Your task to perform on an android device: Open the stopwatch Image 0: 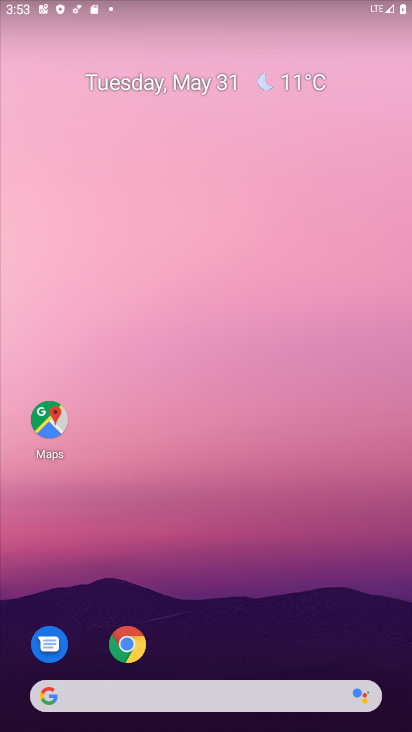
Step 0: drag from (291, 638) to (218, 106)
Your task to perform on an android device: Open the stopwatch Image 1: 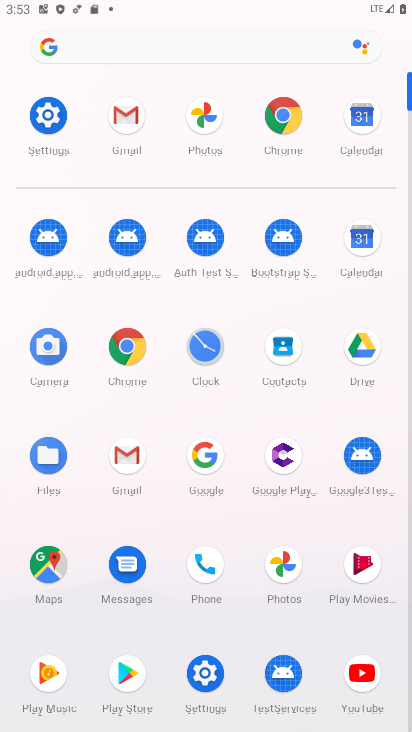
Step 1: click (202, 352)
Your task to perform on an android device: Open the stopwatch Image 2: 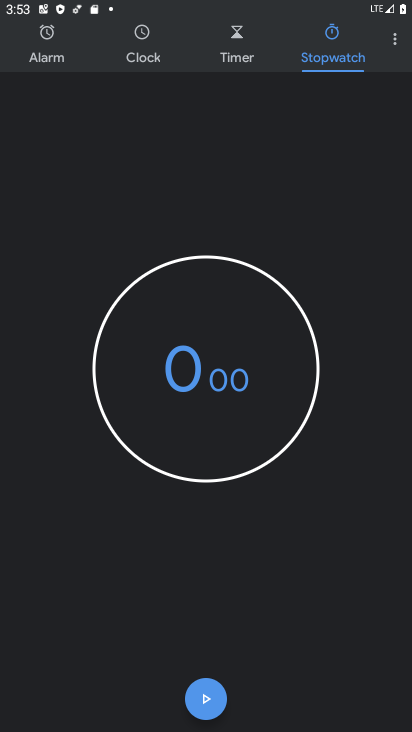
Step 2: click (216, 693)
Your task to perform on an android device: Open the stopwatch Image 3: 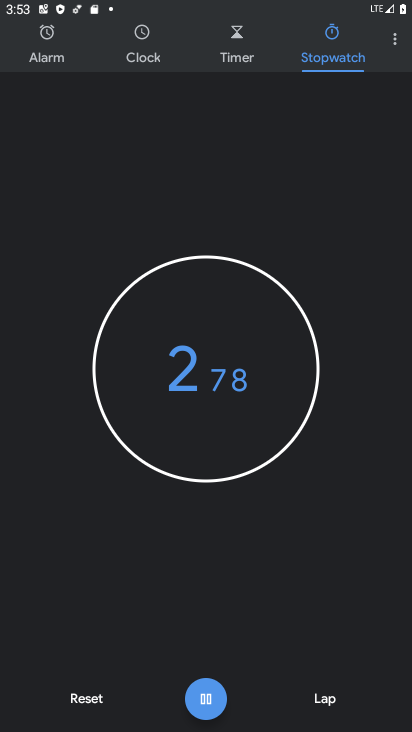
Step 3: task complete